Your task to perform on an android device: What is the recent news? Image 0: 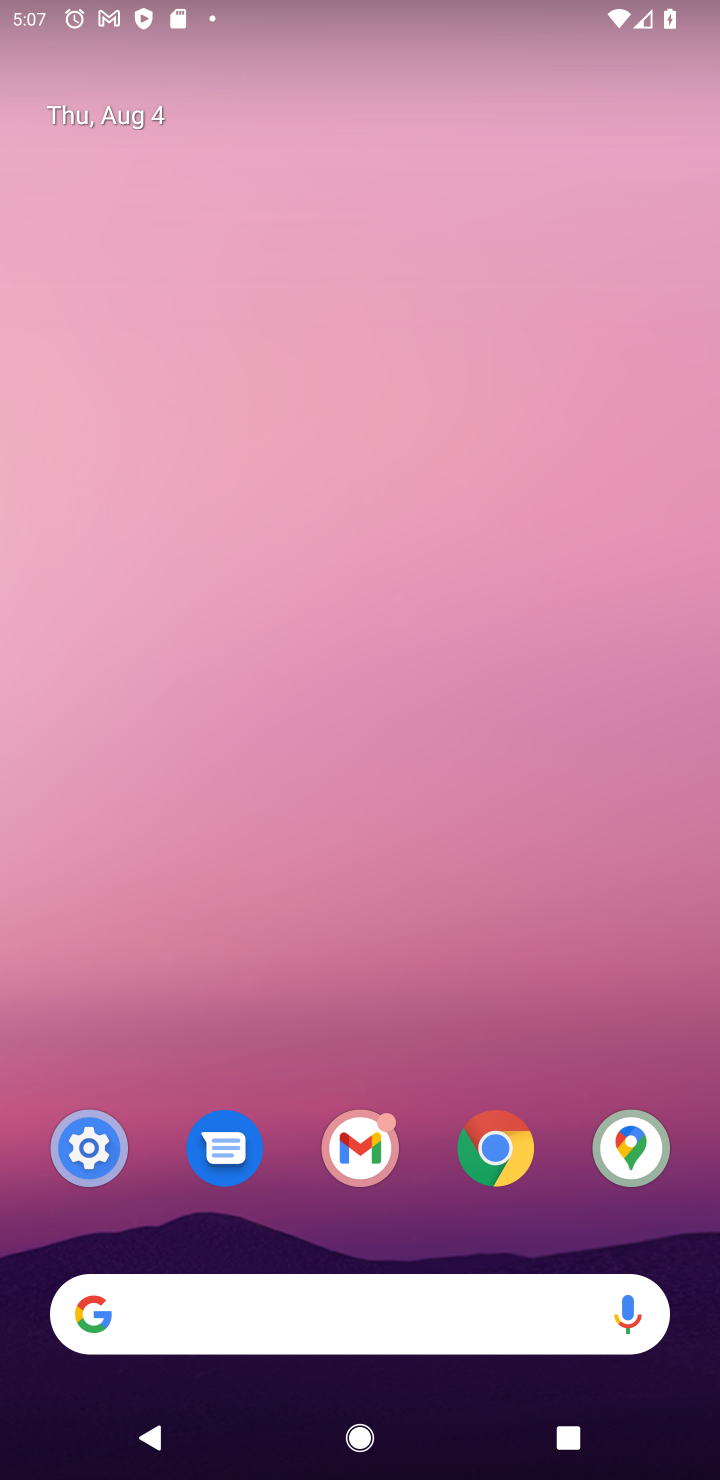
Step 0: drag from (8, 733) to (705, 634)
Your task to perform on an android device: What is the recent news? Image 1: 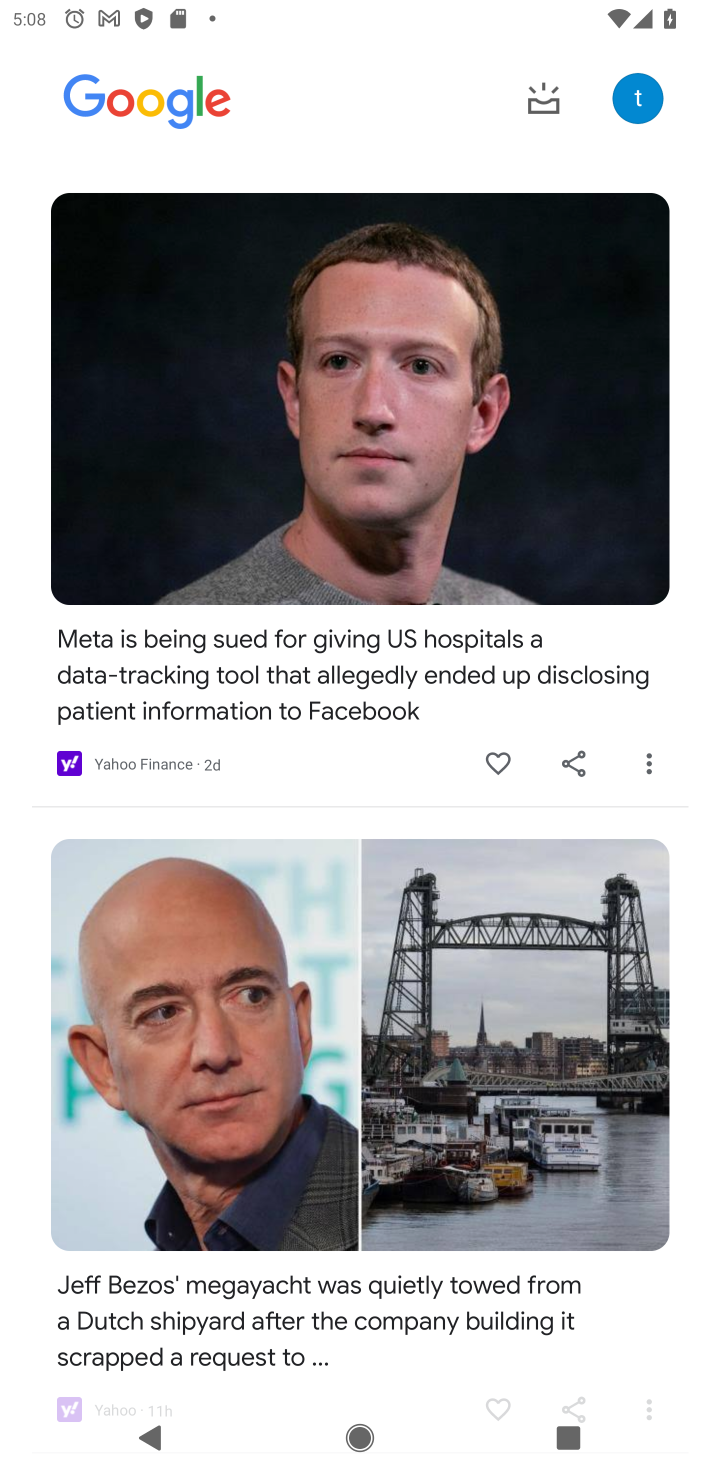
Step 1: task complete